Your task to perform on an android device: allow notifications from all sites in the chrome app Image 0: 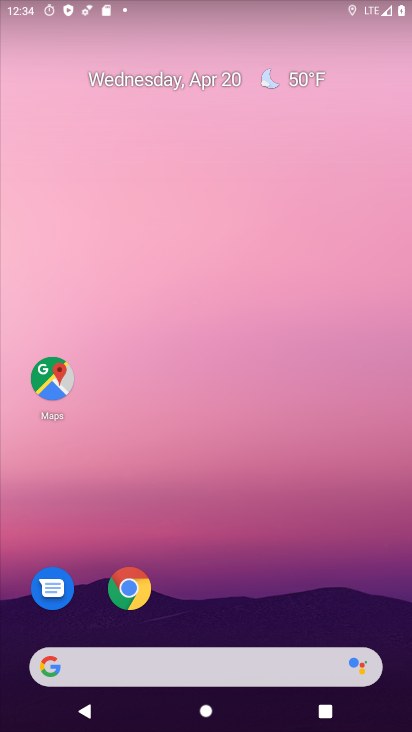
Step 0: click (123, 596)
Your task to perform on an android device: allow notifications from all sites in the chrome app Image 1: 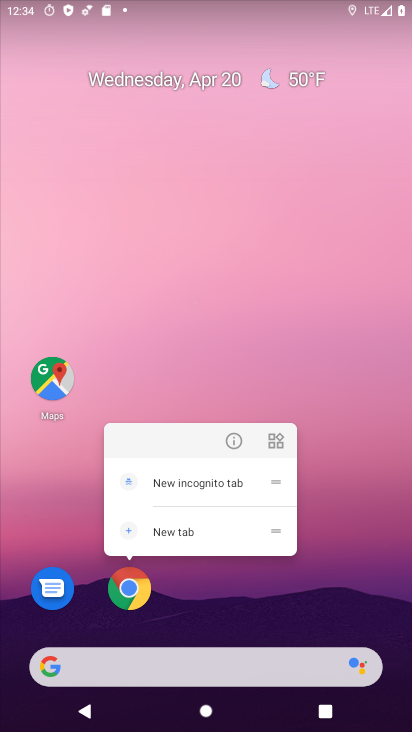
Step 1: click (123, 596)
Your task to perform on an android device: allow notifications from all sites in the chrome app Image 2: 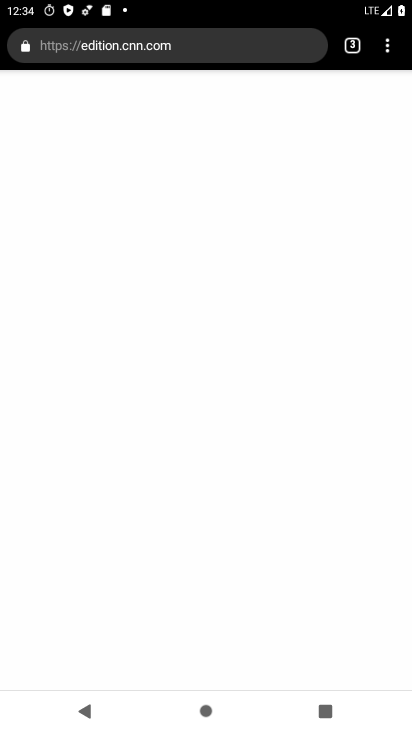
Step 2: drag from (383, 42) to (231, 500)
Your task to perform on an android device: allow notifications from all sites in the chrome app Image 3: 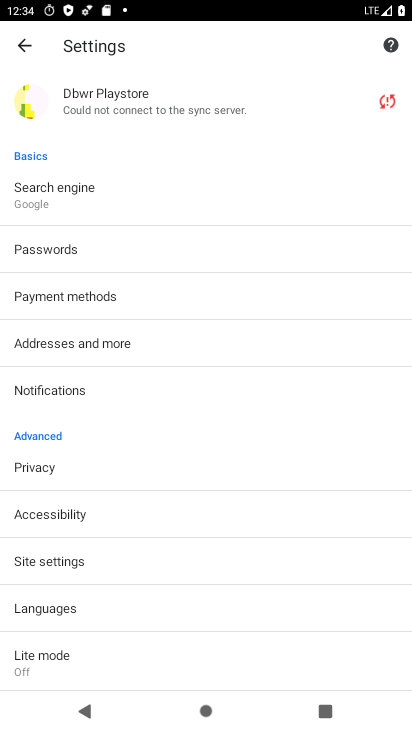
Step 3: click (44, 558)
Your task to perform on an android device: allow notifications from all sites in the chrome app Image 4: 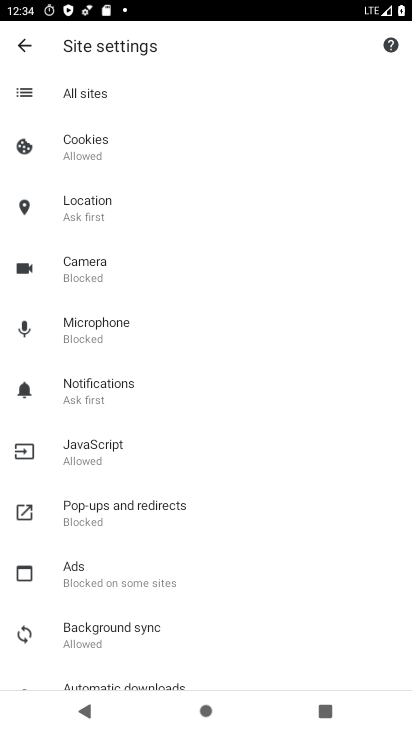
Step 4: click (110, 402)
Your task to perform on an android device: allow notifications from all sites in the chrome app Image 5: 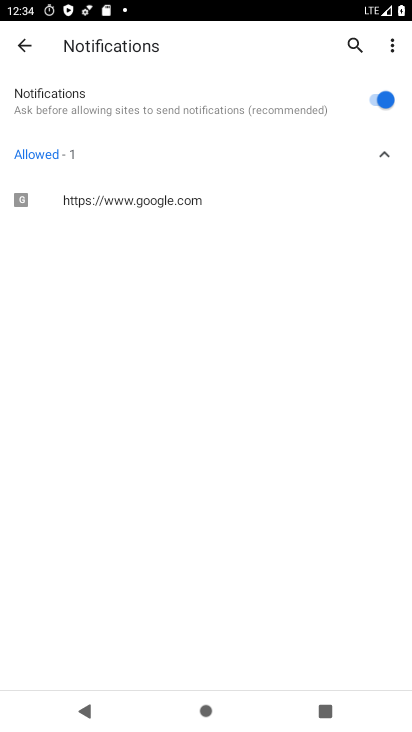
Step 5: task complete